Your task to perform on an android device: Open Wikipedia Image 0: 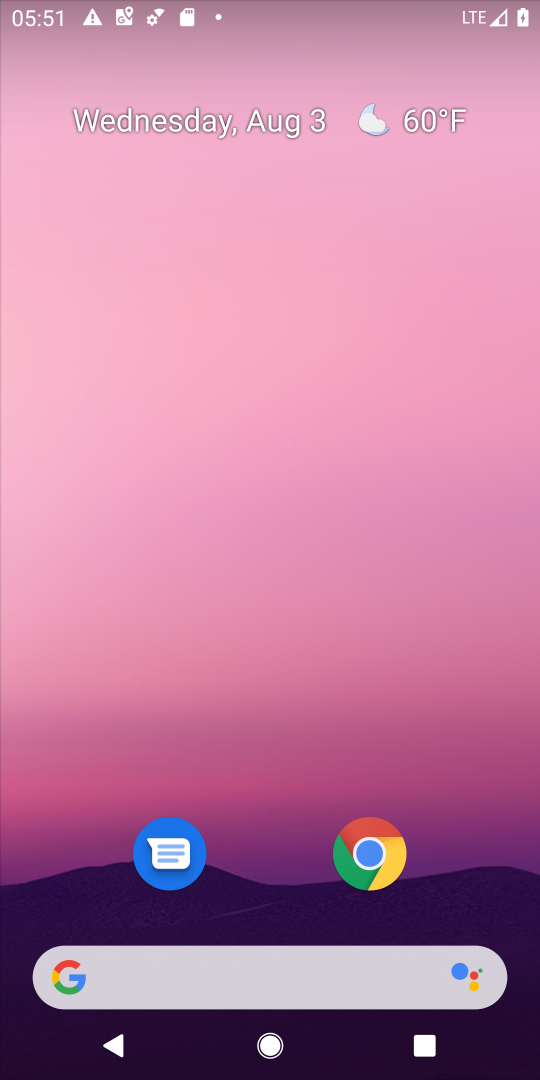
Step 0: click (367, 845)
Your task to perform on an android device: Open Wikipedia Image 1: 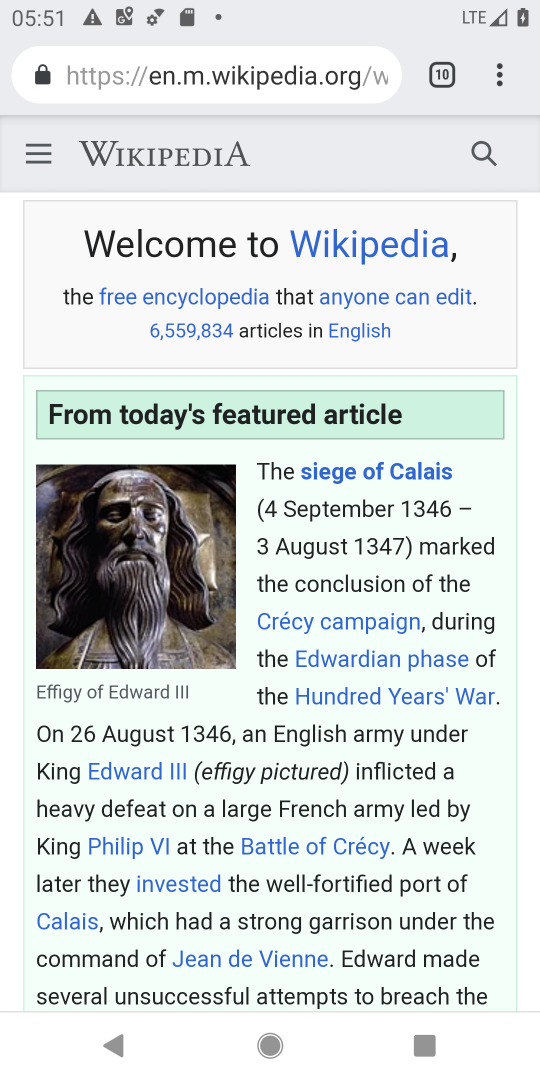
Step 1: task complete